Your task to perform on an android device: Do I have any events this weekend? Image 0: 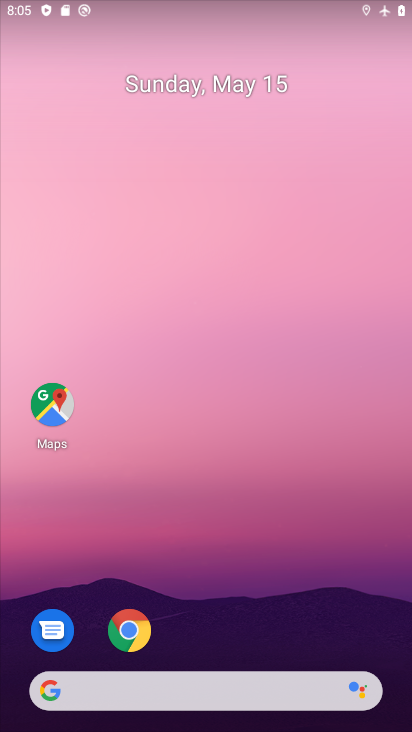
Step 0: drag from (204, 626) to (290, 0)
Your task to perform on an android device: Do I have any events this weekend? Image 1: 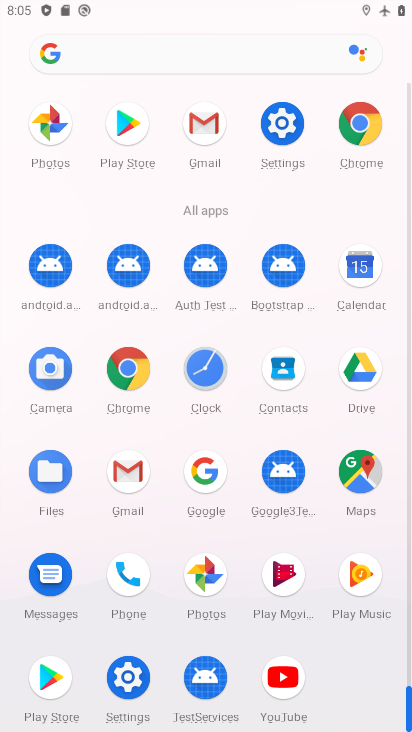
Step 1: click (138, 680)
Your task to perform on an android device: Do I have any events this weekend? Image 2: 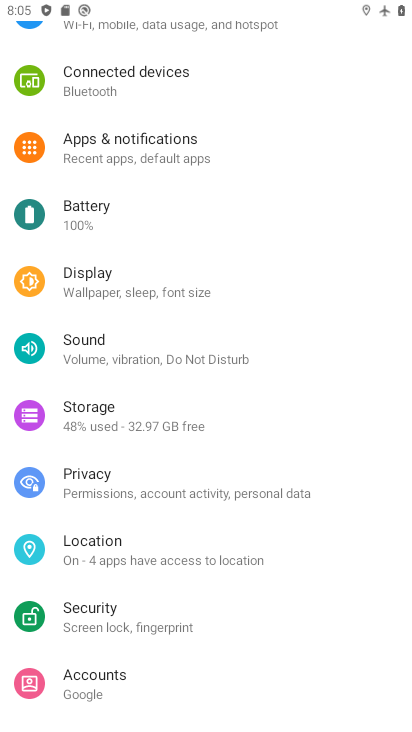
Step 2: press home button
Your task to perform on an android device: Do I have any events this weekend? Image 3: 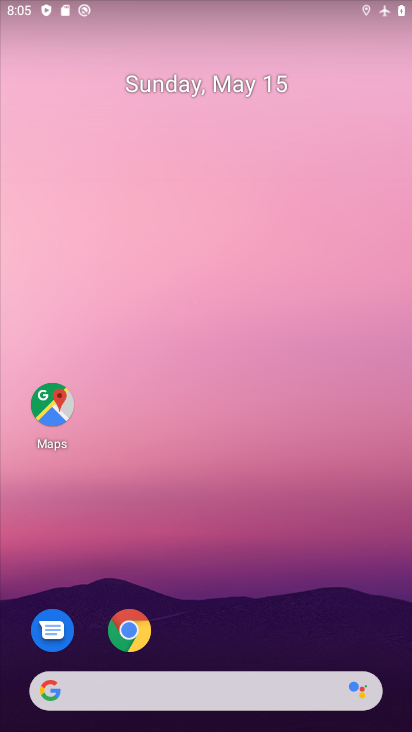
Step 3: drag from (194, 552) to (222, 117)
Your task to perform on an android device: Do I have any events this weekend? Image 4: 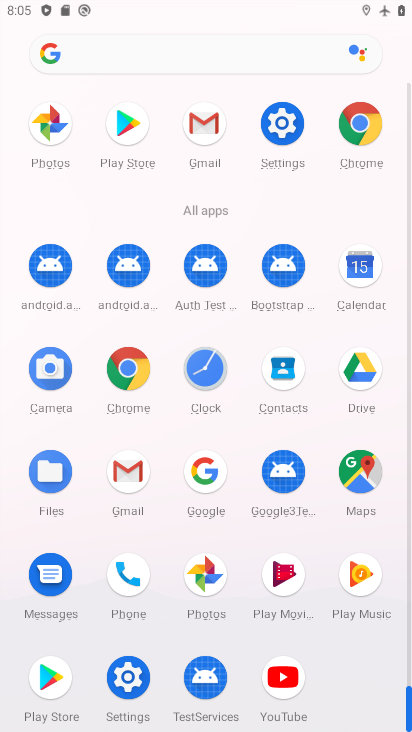
Step 4: click (360, 261)
Your task to perform on an android device: Do I have any events this weekend? Image 5: 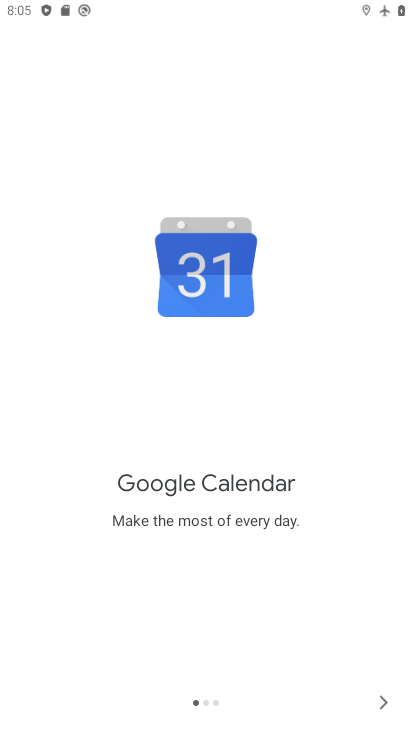
Step 5: click (378, 694)
Your task to perform on an android device: Do I have any events this weekend? Image 6: 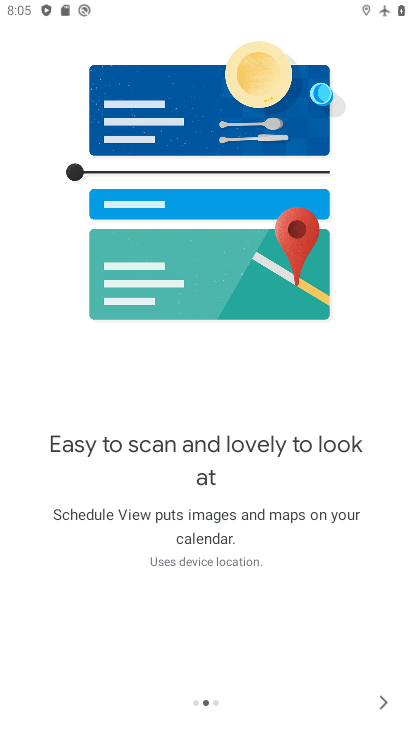
Step 6: click (374, 700)
Your task to perform on an android device: Do I have any events this weekend? Image 7: 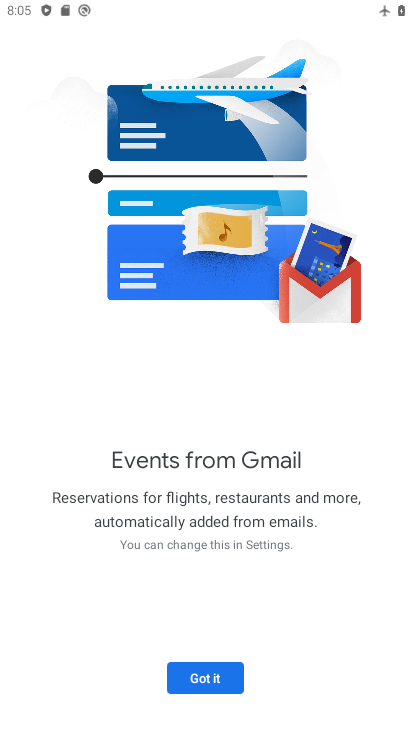
Step 7: click (189, 671)
Your task to perform on an android device: Do I have any events this weekend? Image 8: 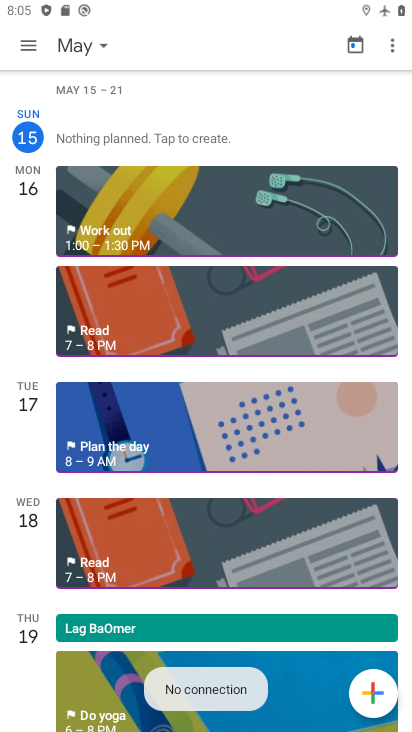
Step 8: click (22, 46)
Your task to perform on an android device: Do I have any events this weekend? Image 9: 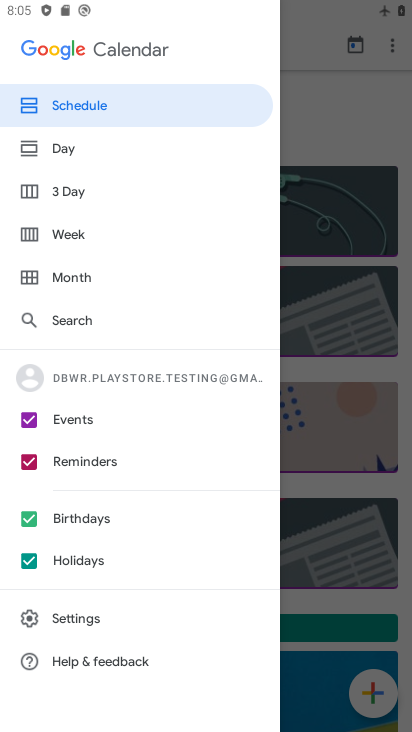
Step 9: click (28, 516)
Your task to perform on an android device: Do I have any events this weekend? Image 10: 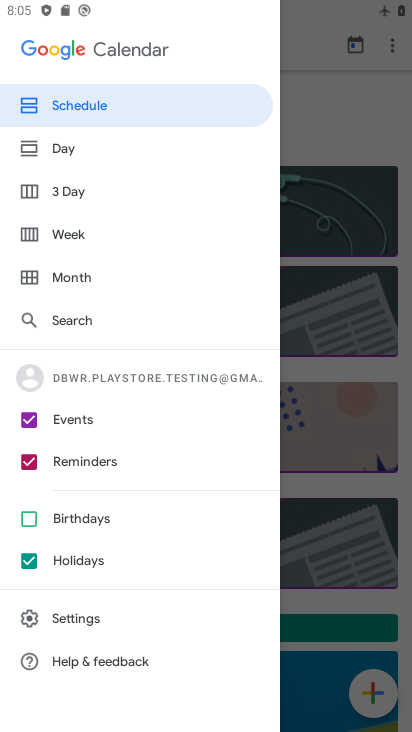
Step 10: click (30, 560)
Your task to perform on an android device: Do I have any events this weekend? Image 11: 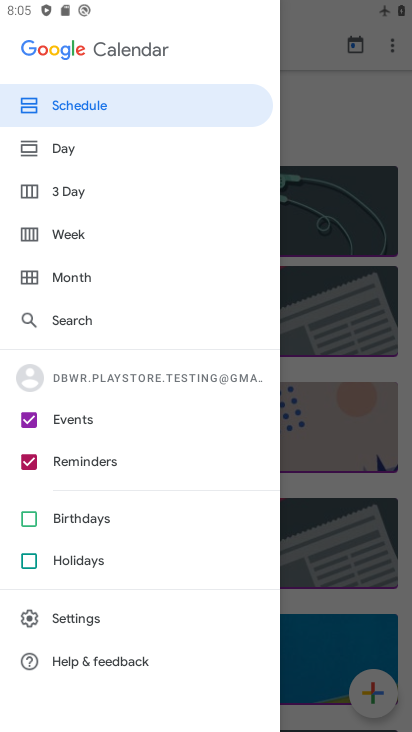
Step 11: click (33, 457)
Your task to perform on an android device: Do I have any events this weekend? Image 12: 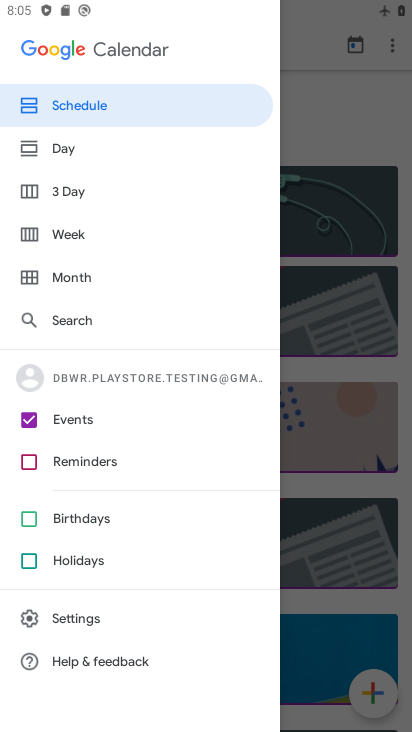
Step 12: click (73, 234)
Your task to perform on an android device: Do I have any events this weekend? Image 13: 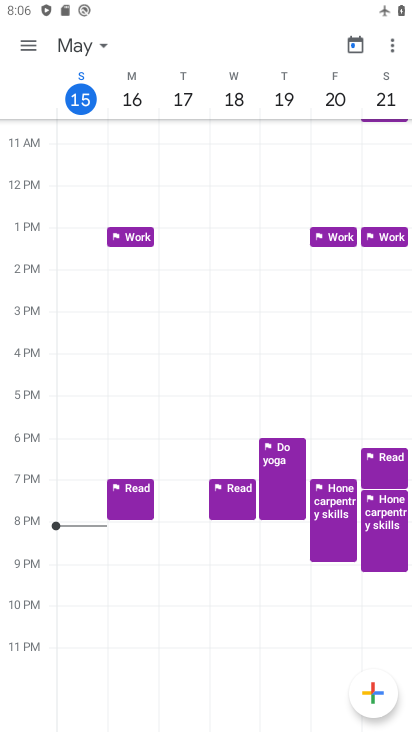
Step 13: task complete